Your task to perform on an android device: open chrome and create a bookmark for the current page Image 0: 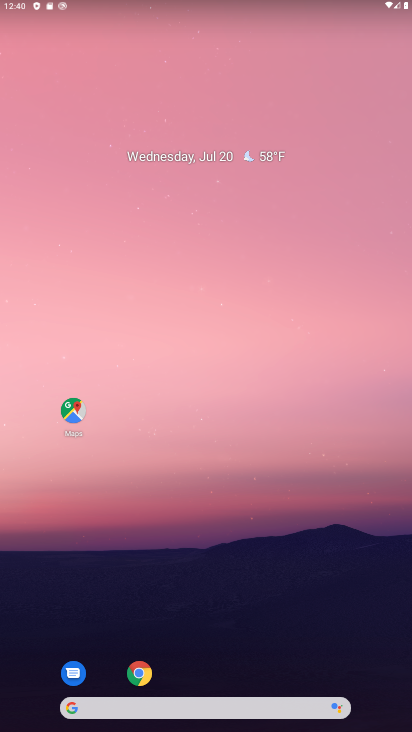
Step 0: drag from (331, 605) to (287, 233)
Your task to perform on an android device: open chrome and create a bookmark for the current page Image 1: 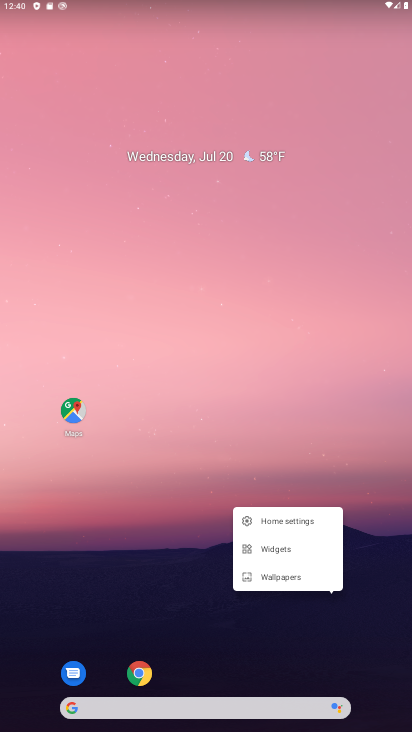
Step 1: click (167, 500)
Your task to perform on an android device: open chrome and create a bookmark for the current page Image 2: 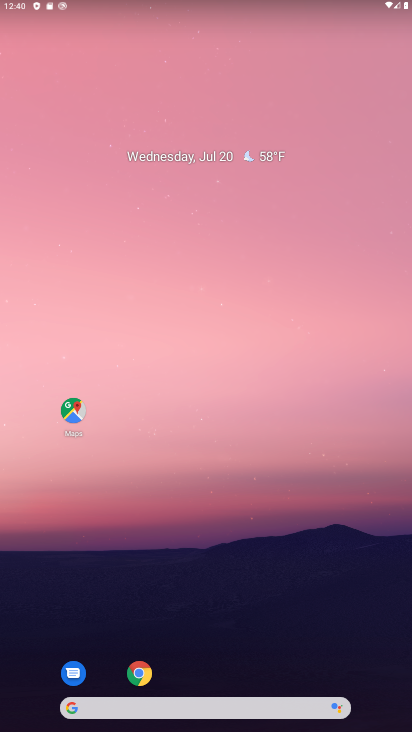
Step 2: click (134, 675)
Your task to perform on an android device: open chrome and create a bookmark for the current page Image 3: 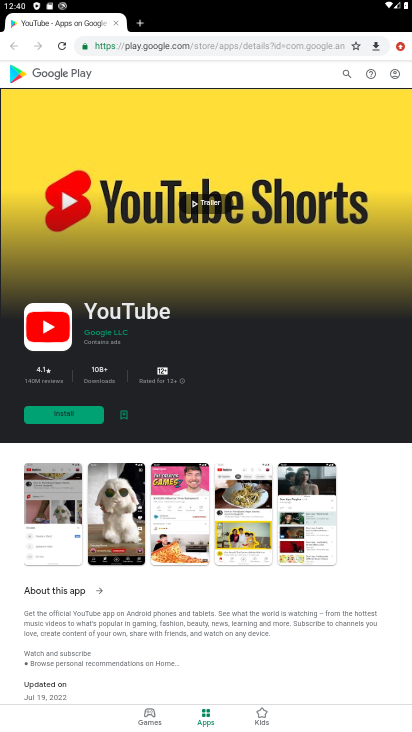
Step 3: click (354, 47)
Your task to perform on an android device: open chrome and create a bookmark for the current page Image 4: 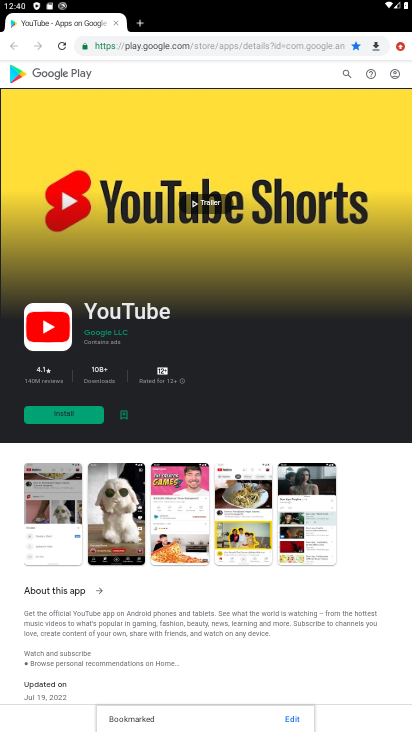
Step 4: task complete